Your task to perform on an android device: Open the calendar app, open the side menu, and click the "Day" option Image 0: 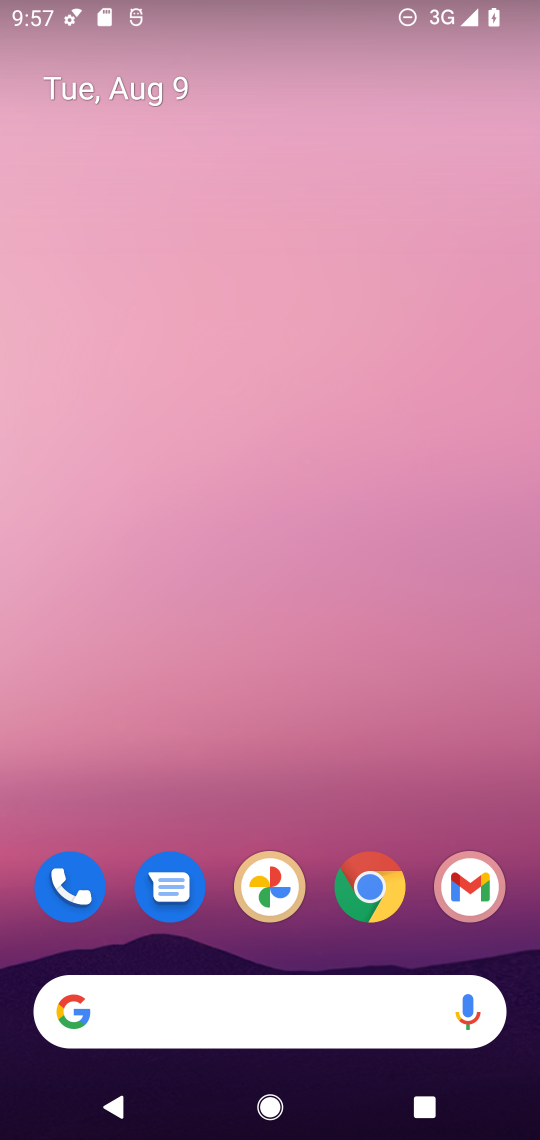
Step 0: drag from (266, 795) to (203, 183)
Your task to perform on an android device: Open the calendar app, open the side menu, and click the "Day" option Image 1: 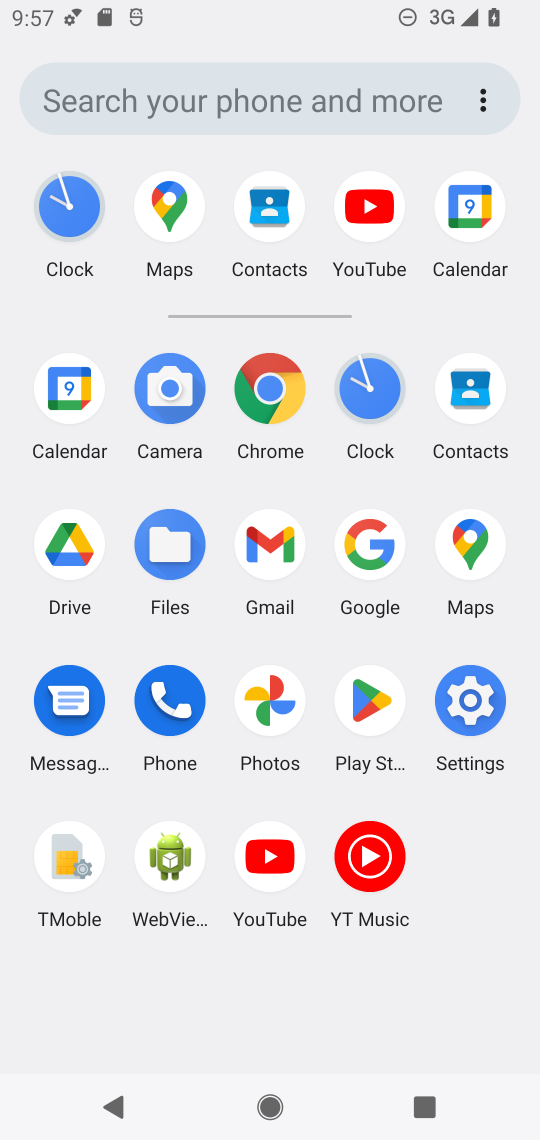
Step 1: click (455, 255)
Your task to perform on an android device: Open the calendar app, open the side menu, and click the "Day" option Image 2: 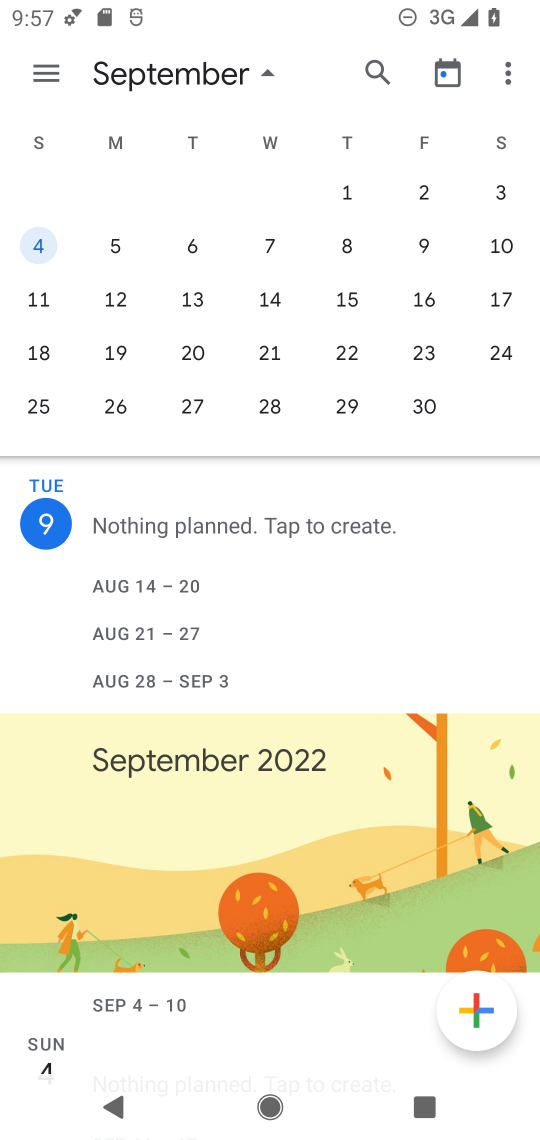
Step 2: click (98, 88)
Your task to perform on an android device: Open the calendar app, open the side menu, and click the "Day" option Image 3: 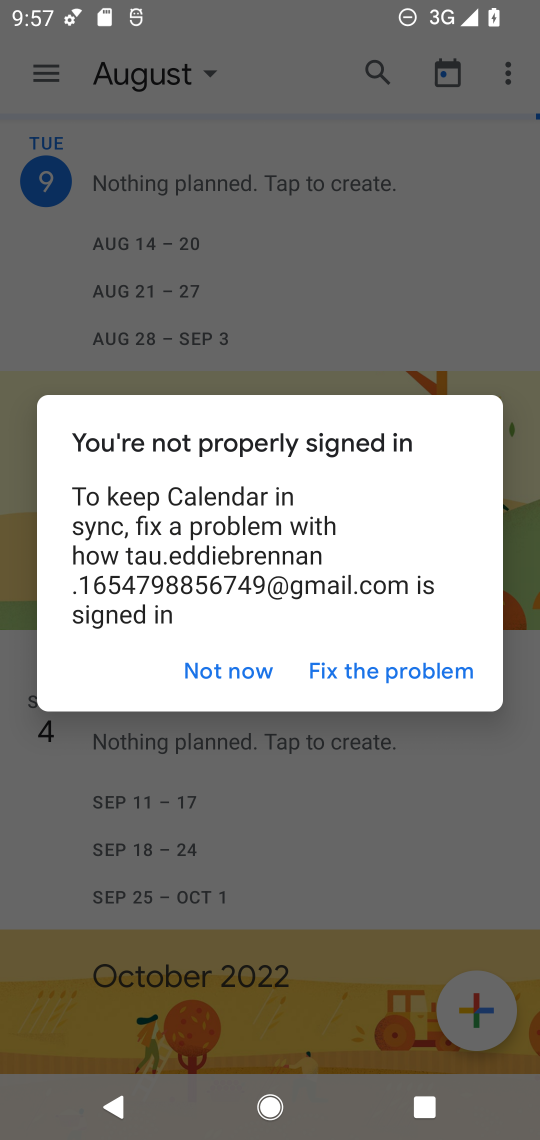
Step 3: click (233, 673)
Your task to perform on an android device: Open the calendar app, open the side menu, and click the "Day" option Image 4: 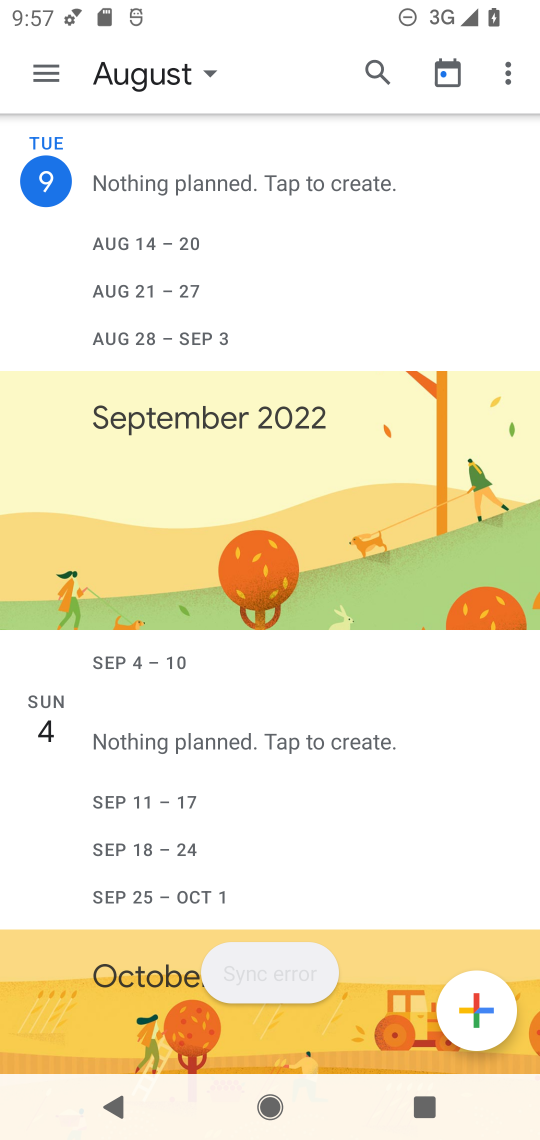
Step 4: click (43, 90)
Your task to perform on an android device: Open the calendar app, open the side menu, and click the "Day" option Image 5: 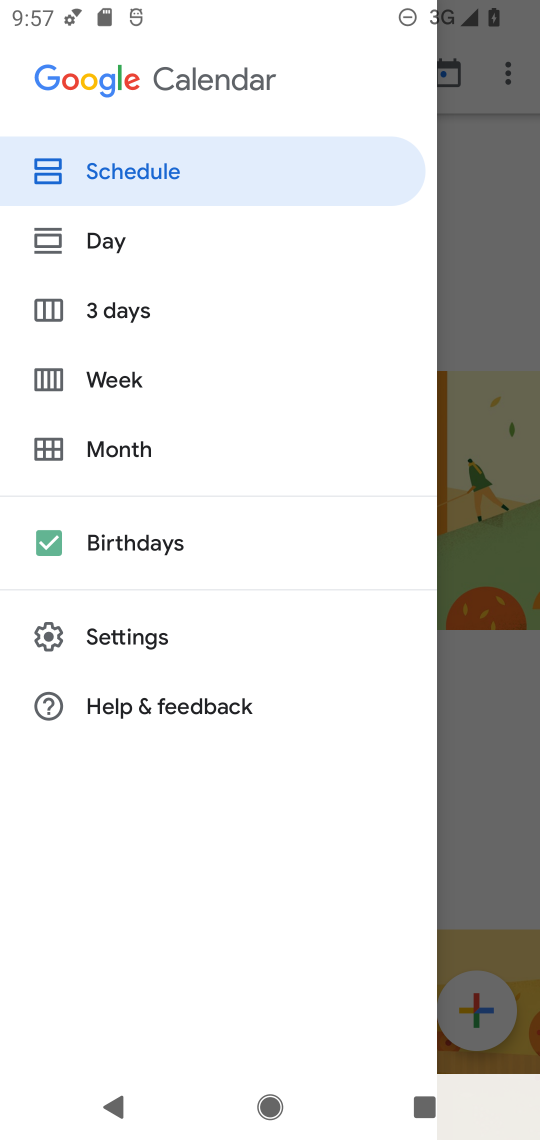
Step 5: click (92, 215)
Your task to perform on an android device: Open the calendar app, open the side menu, and click the "Day" option Image 6: 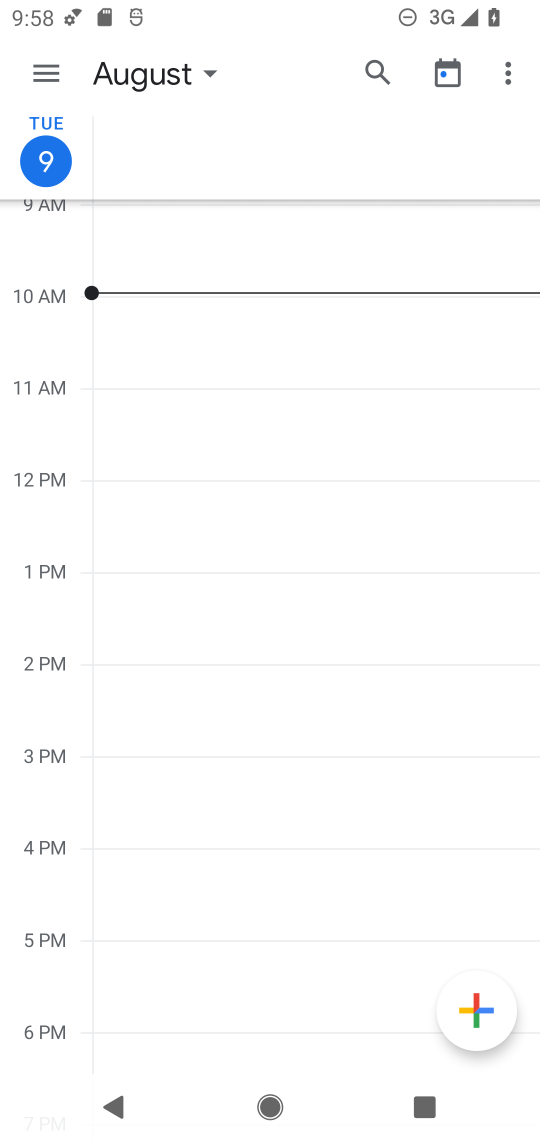
Step 6: task complete